Your task to perform on an android device: change your default location settings in chrome Image 0: 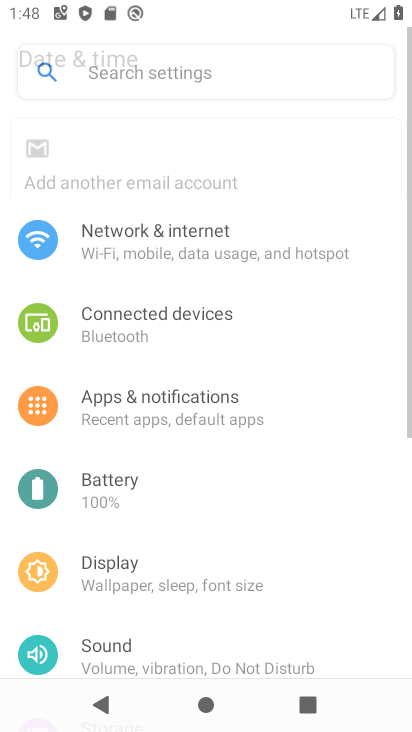
Step 0: drag from (253, 664) to (284, 230)
Your task to perform on an android device: change your default location settings in chrome Image 1: 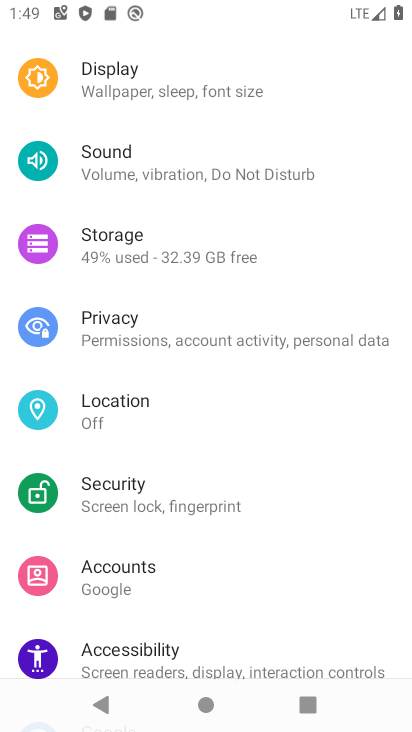
Step 1: press home button
Your task to perform on an android device: change your default location settings in chrome Image 2: 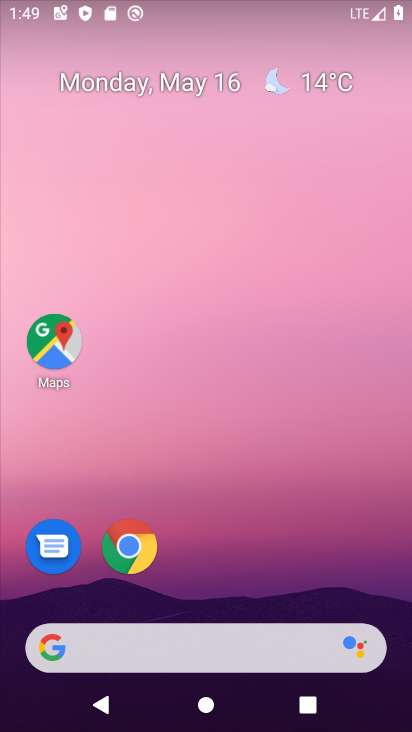
Step 2: drag from (274, 649) to (235, 252)
Your task to perform on an android device: change your default location settings in chrome Image 3: 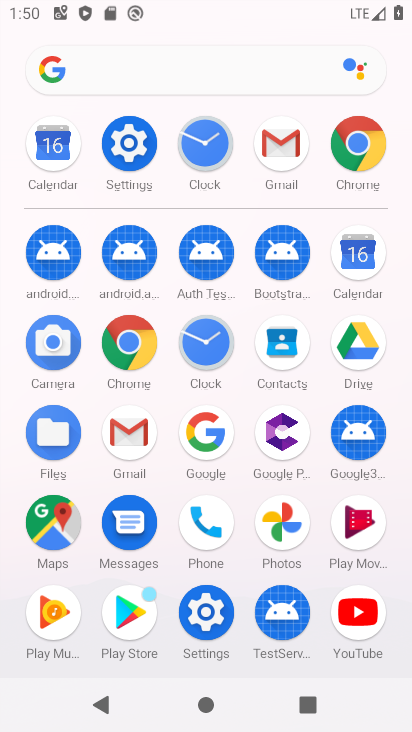
Step 3: click (122, 338)
Your task to perform on an android device: change your default location settings in chrome Image 4: 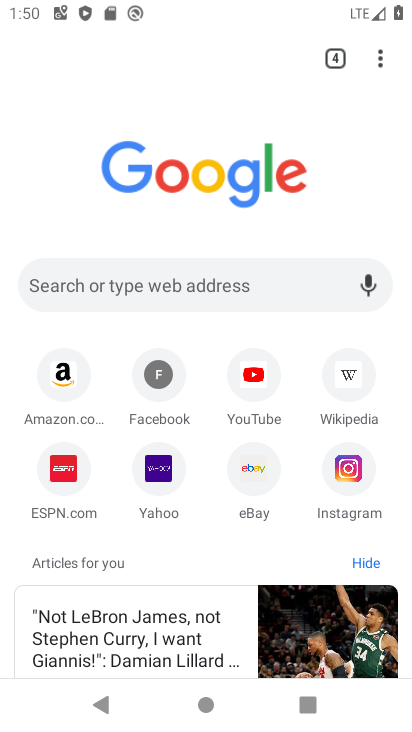
Step 4: click (383, 57)
Your task to perform on an android device: change your default location settings in chrome Image 5: 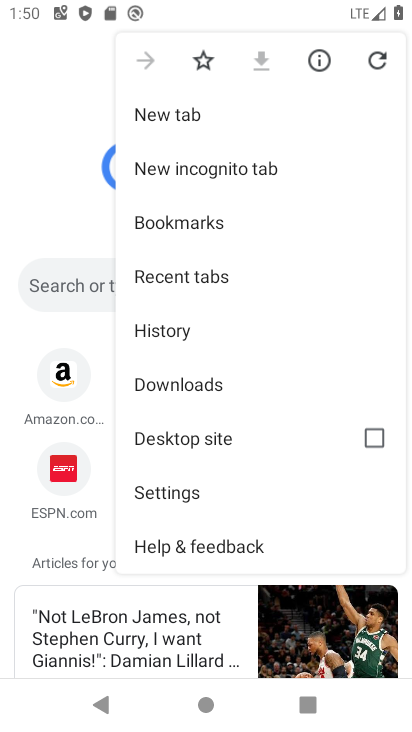
Step 5: click (191, 487)
Your task to perform on an android device: change your default location settings in chrome Image 6: 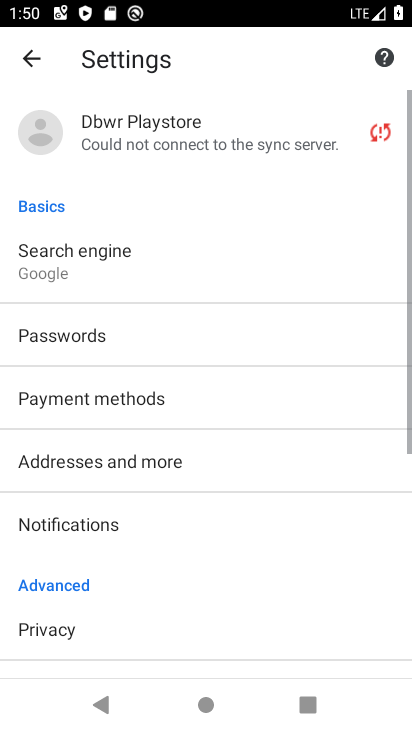
Step 6: drag from (226, 513) to (260, 326)
Your task to perform on an android device: change your default location settings in chrome Image 7: 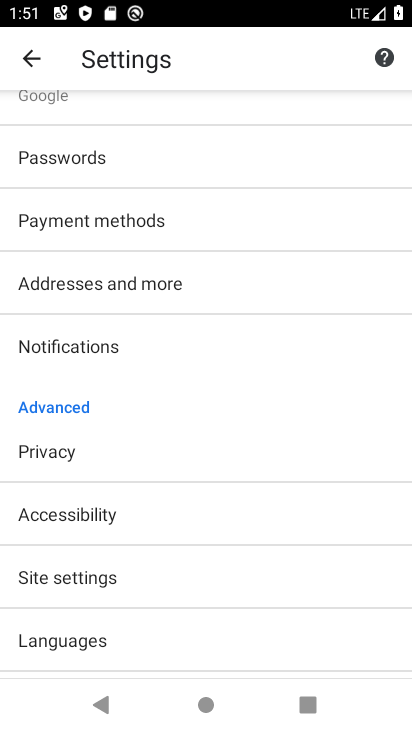
Step 7: click (131, 580)
Your task to perform on an android device: change your default location settings in chrome Image 8: 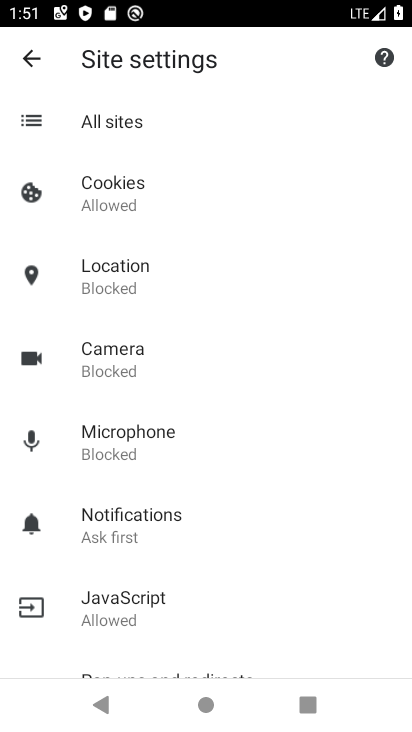
Step 8: click (141, 268)
Your task to perform on an android device: change your default location settings in chrome Image 9: 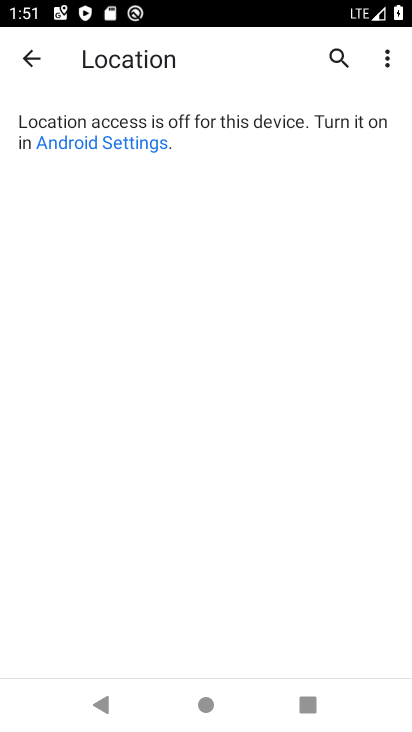
Step 9: task complete